Your task to perform on an android device: Clear the cart on ebay. Image 0: 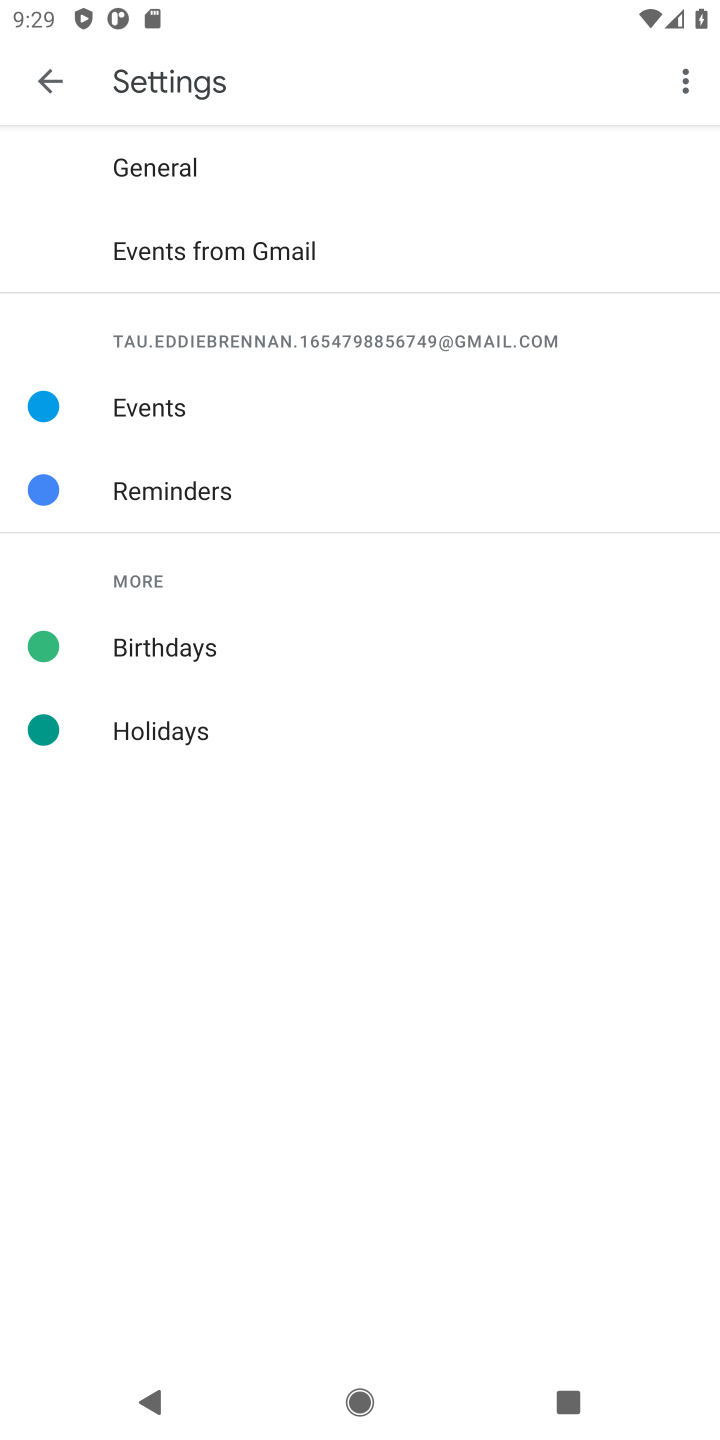
Step 0: press home button
Your task to perform on an android device: Clear the cart on ebay. Image 1: 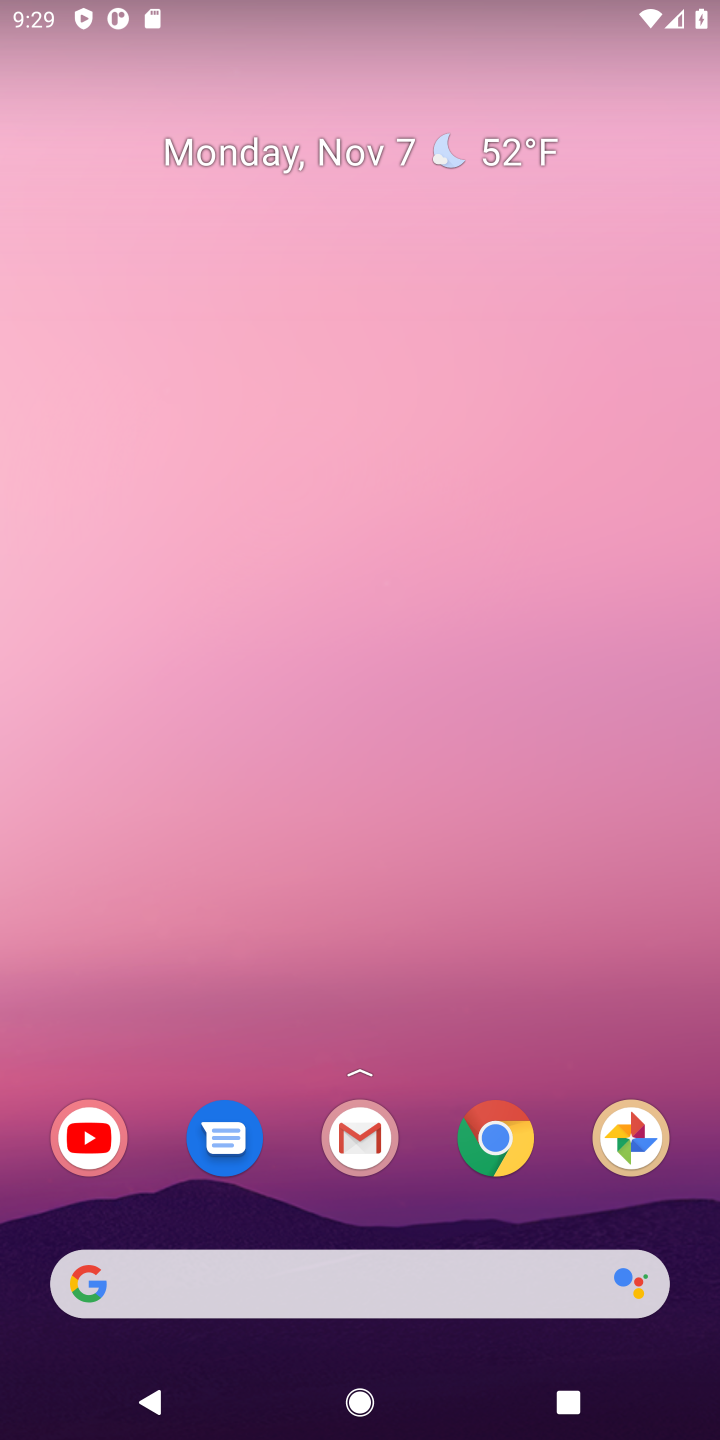
Step 1: drag from (370, 1102) to (370, 220)
Your task to perform on an android device: Clear the cart on ebay. Image 2: 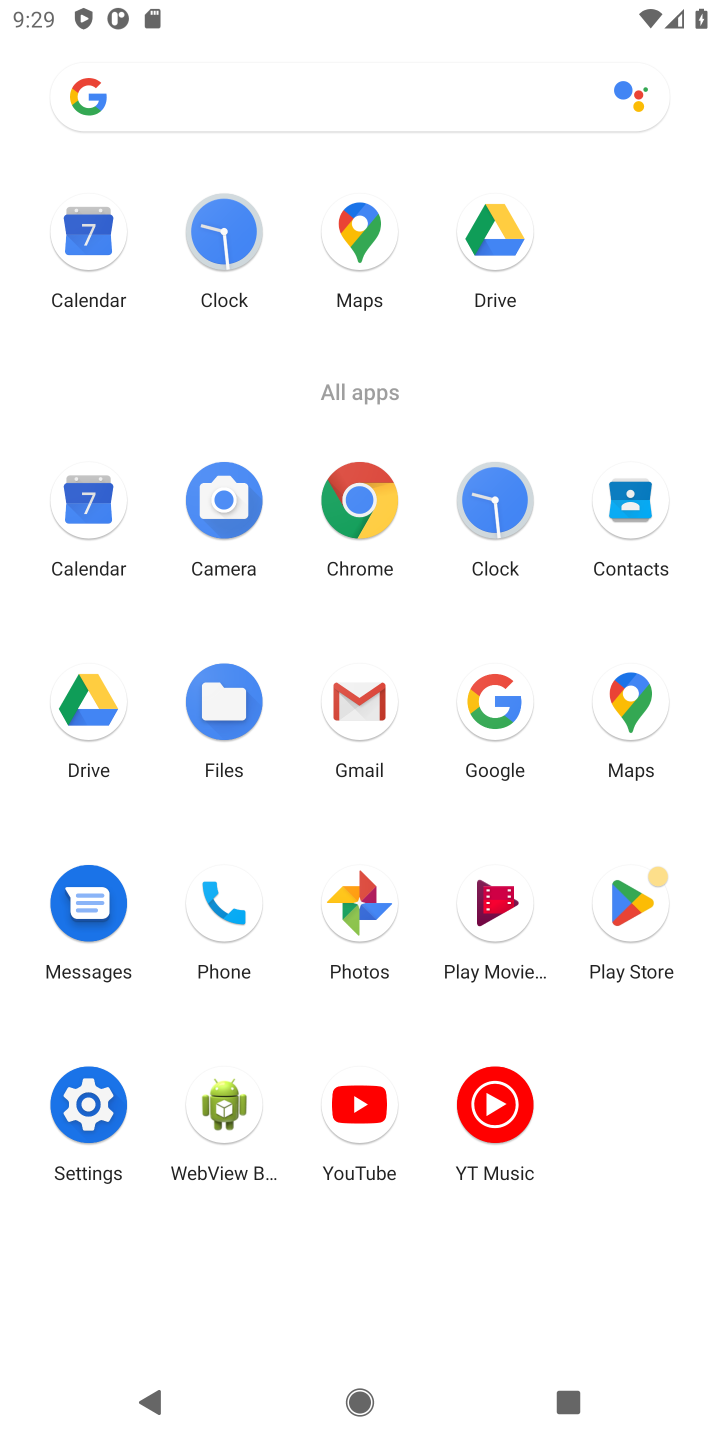
Step 2: click (513, 710)
Your task to perform on an android device: Clear the cart on ebay. Image 3: 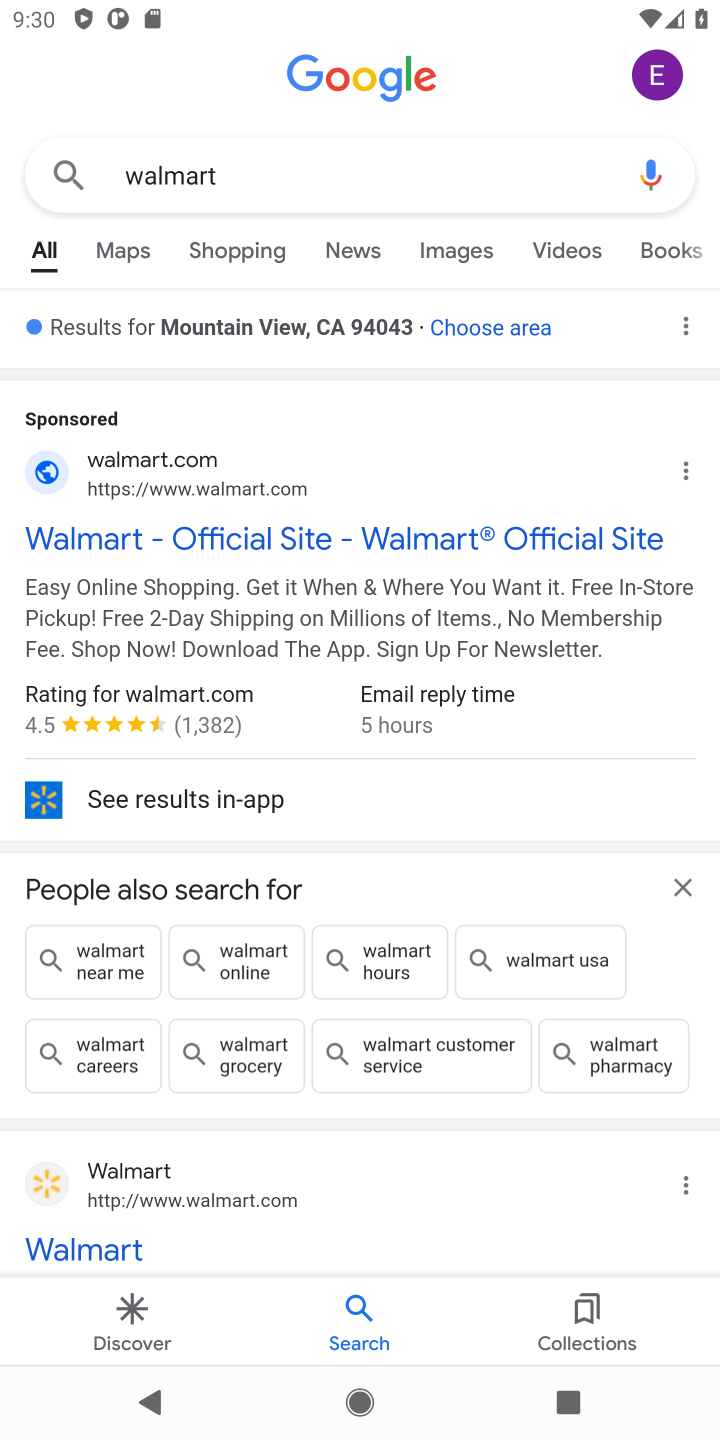
Step 3: click (351, 168)
Your task to perform on an android device: Clear the cart on ebay. Image 4: 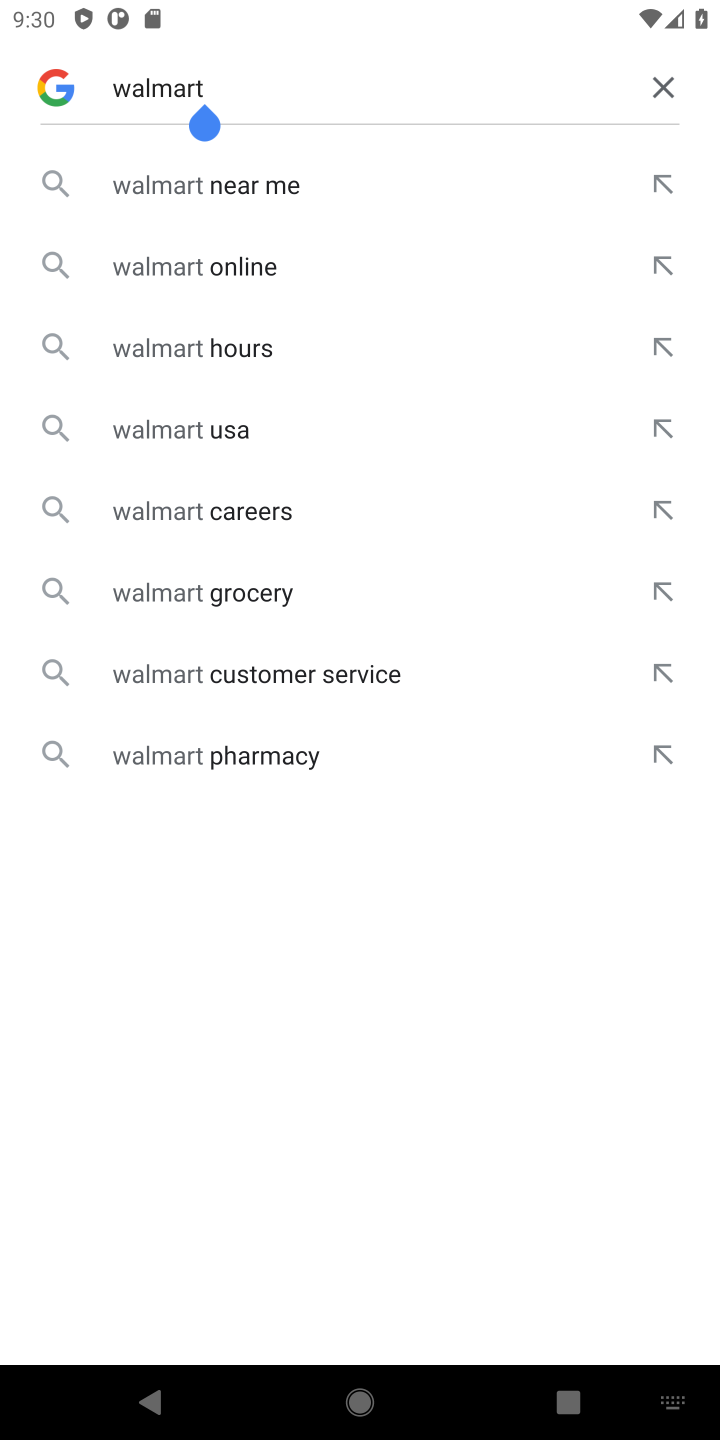
Step 4: click (652, 89)
Your task to perform on an android device: Clear the cart on ebay. Image 5: 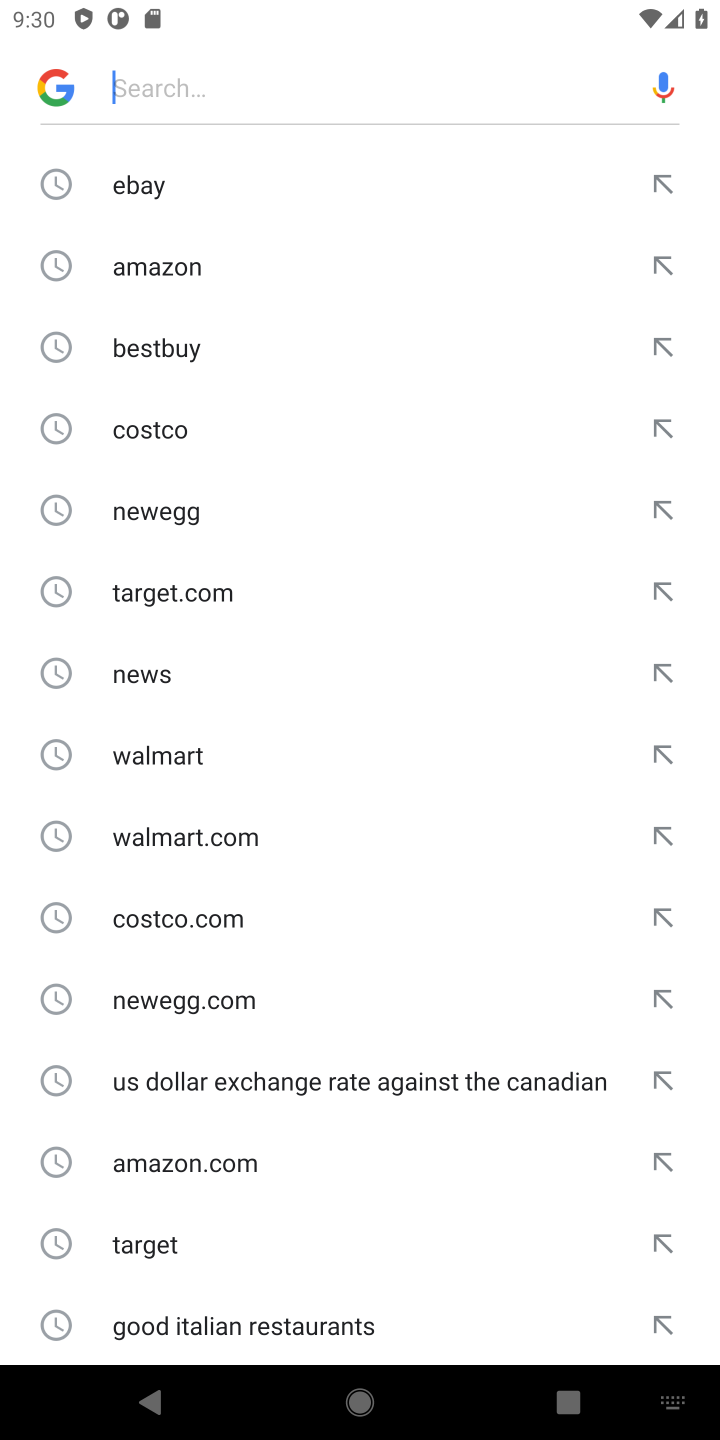
Step 5: type "ebay"
Your task to perform on an android device: Clear the cart on ebay. Image 6: 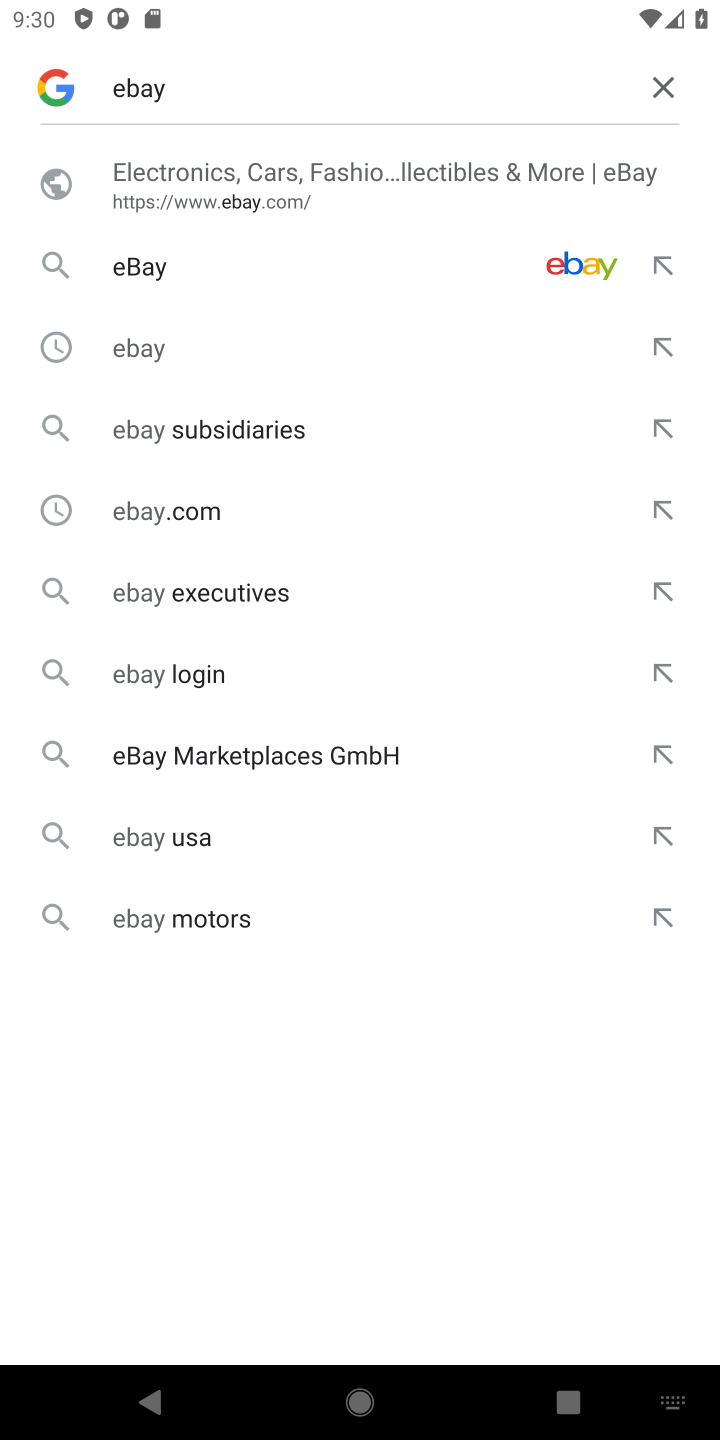
Step 6: click (219, 203)
Your task to perform on an android device: Clear the cart on ebay. Image 7: 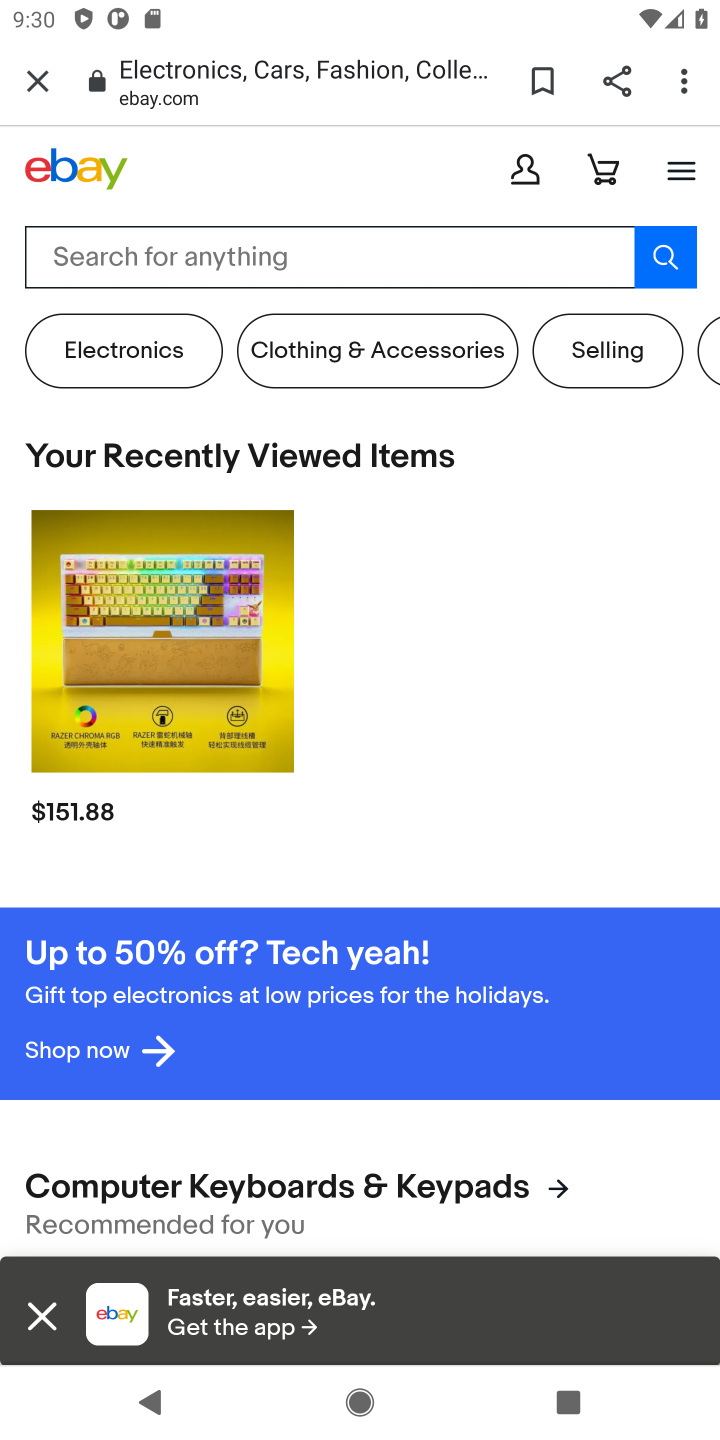
Step 7: click (597, 183)
Your task to perform on an android device: Clear the cart on ebay. Image 8: 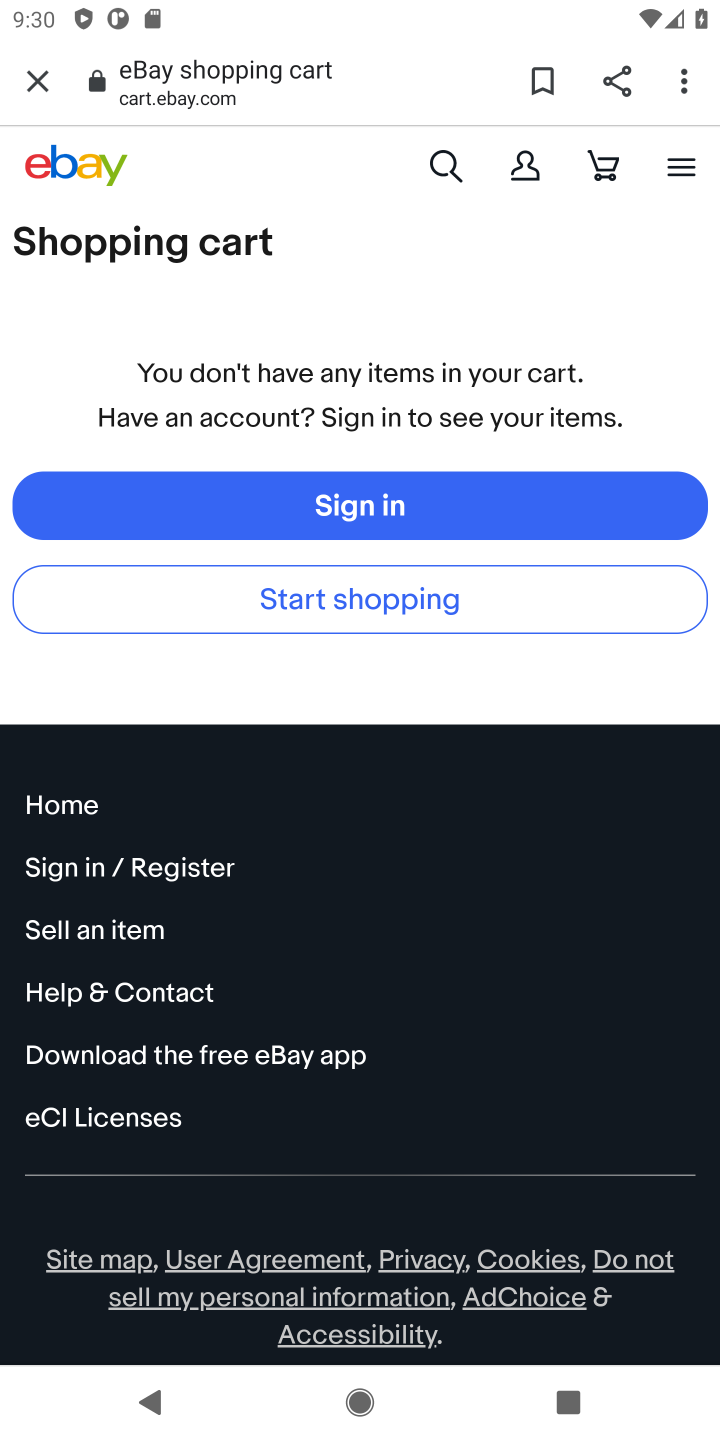
Step 8: task complete